Your task to perform on an android device: open device folders in google photos Image 0: 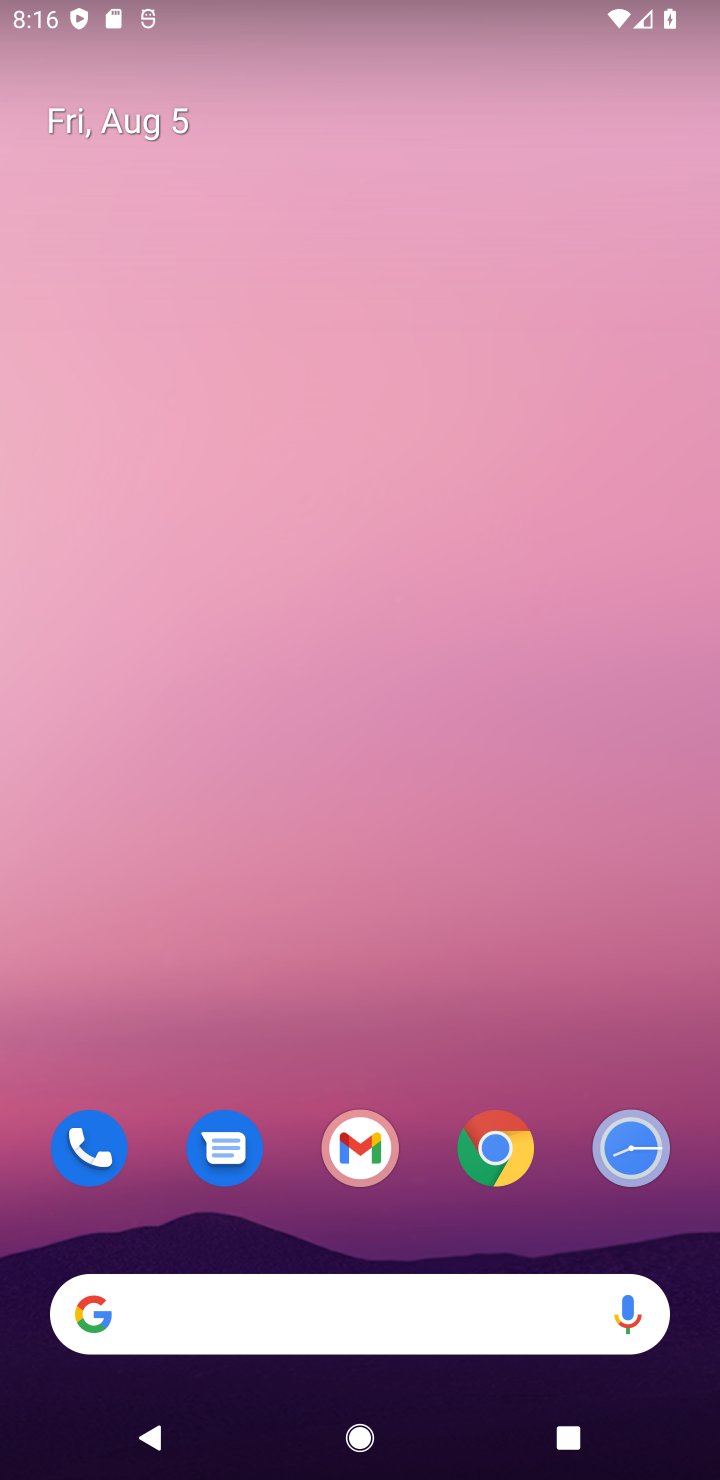
Step 0: drag from (446, 1255) to (277, 170)
Your task to perform on an android device: open device folders in google photos Image 1: 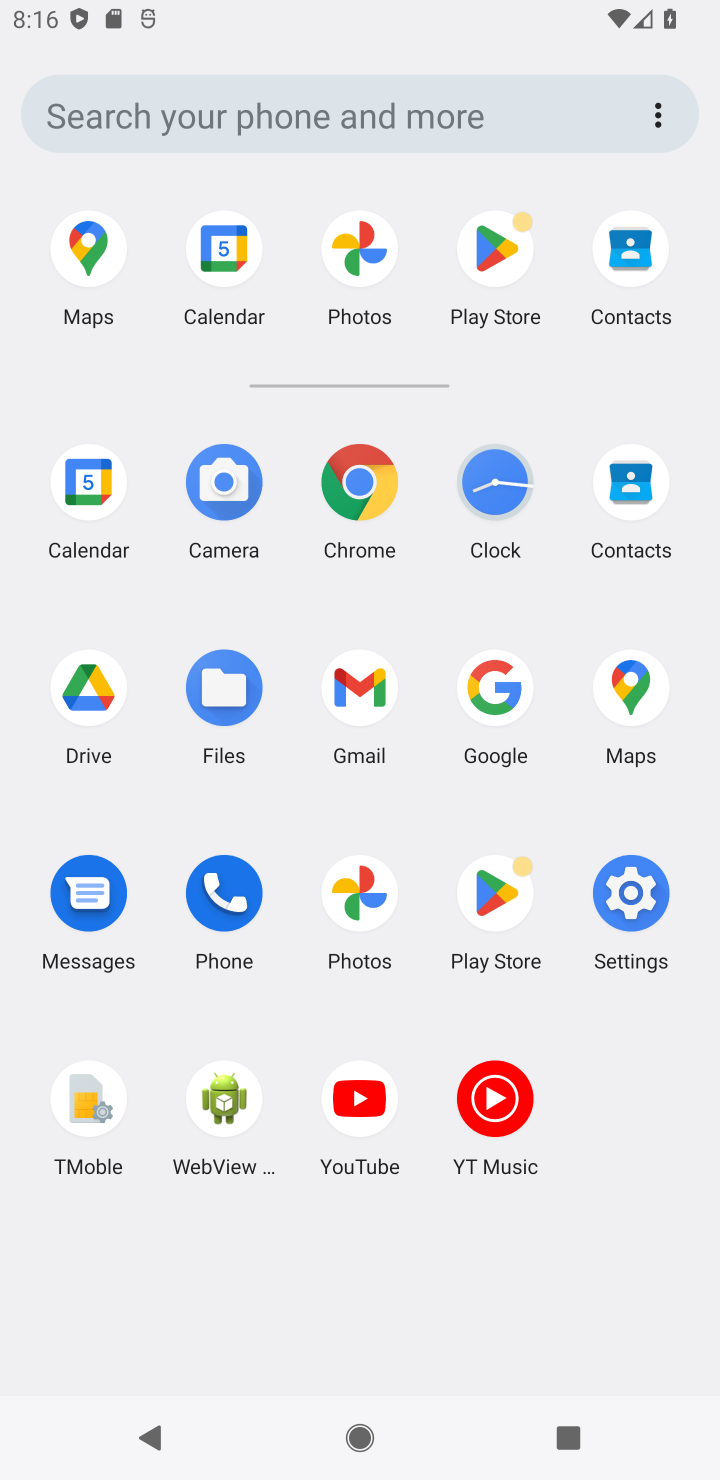
Step 1: click (364, 272)
Your task to perform on an android device: open device folders in google photos Image 2: 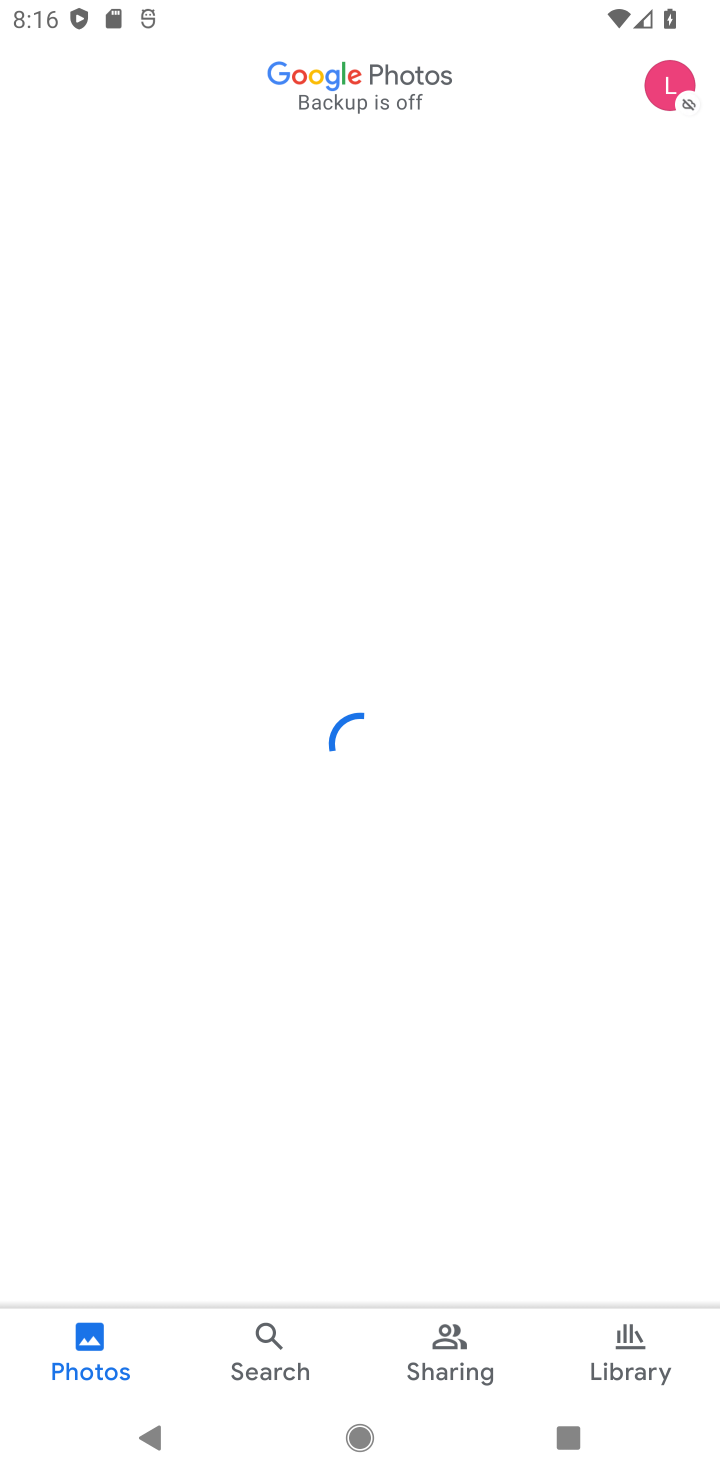
Step 2: task complete